Your task to perform on an android device: Open Google Maps Image 0: 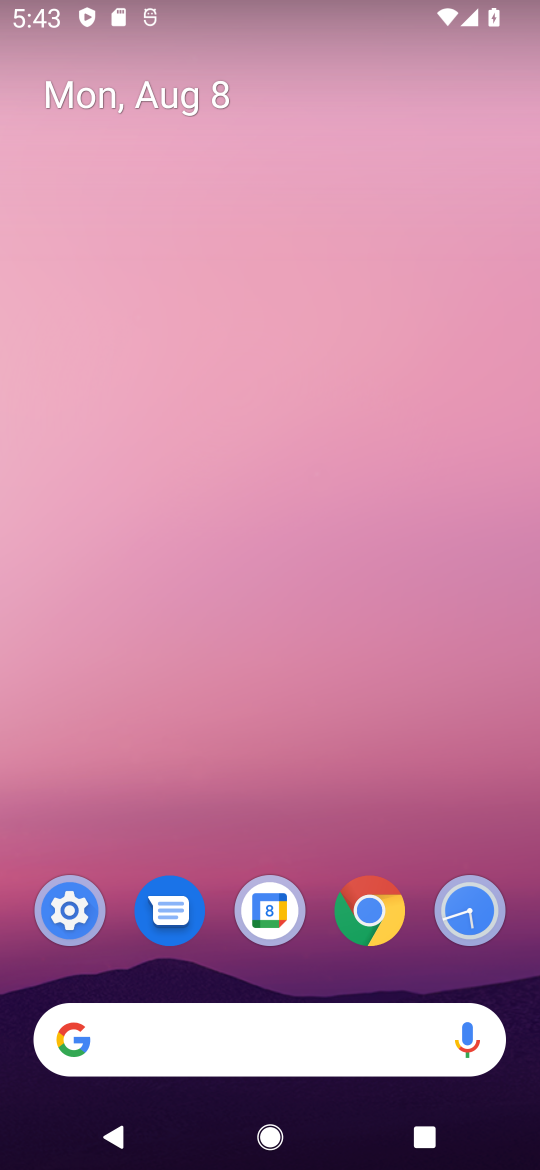
Step 0: drag from (226, 1036) to (290, 516)
Your task to perform on an android device: Open Google Maps Image 1: 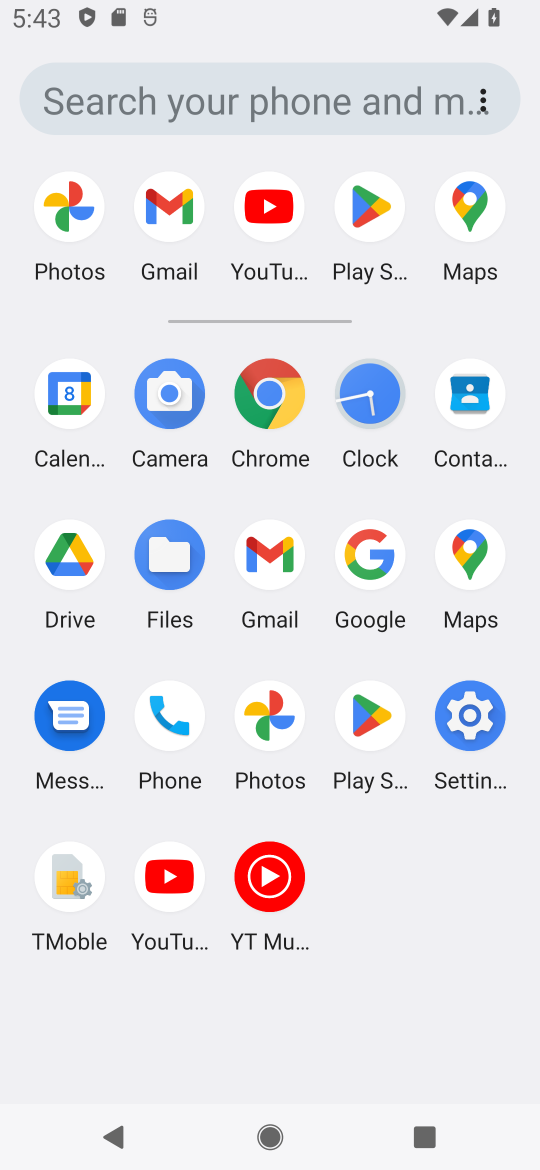
Step 1: click (472, 198)
Your task to perform on an android device: Open Google Maps Image 2: 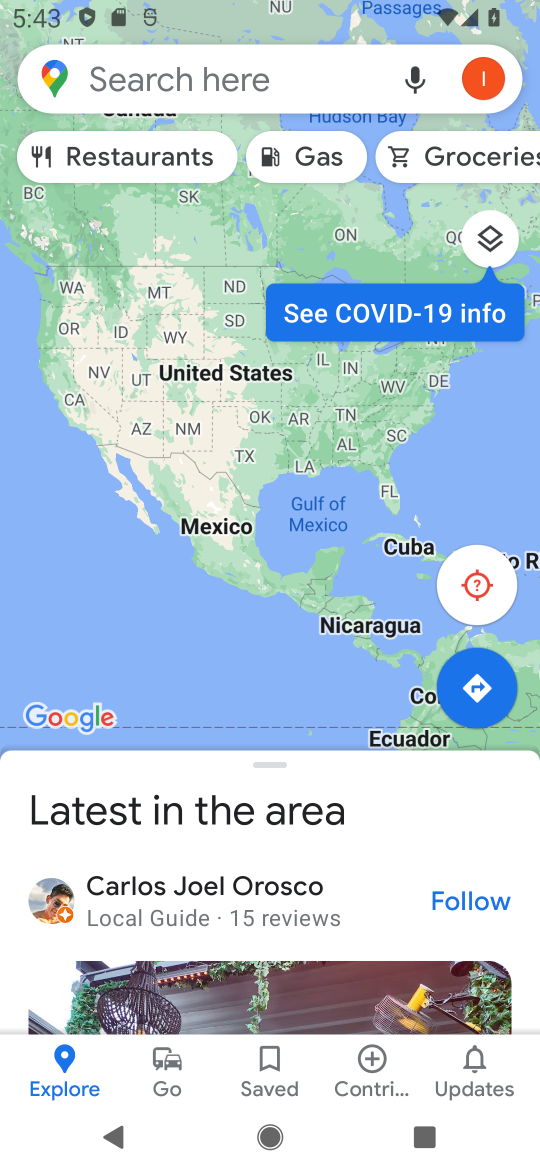
Step 2: task complete